Your task to perform on an android device: add a contact in the contacts app Image 0: 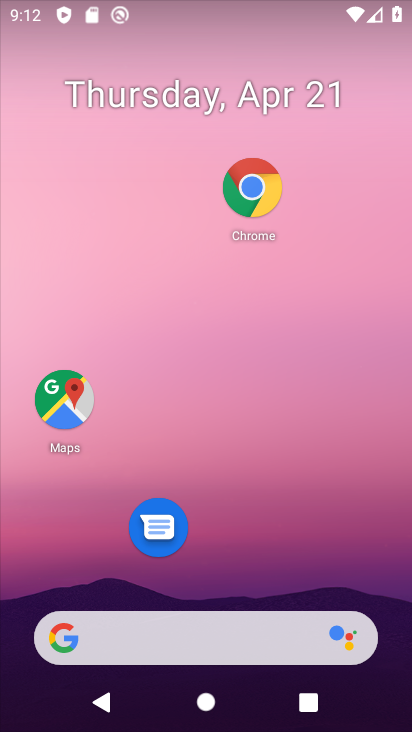
Step 0: drag from (290, 552) to (366, 158)
Your task to perform on an android device: add a contact in the contacts app Image 1: 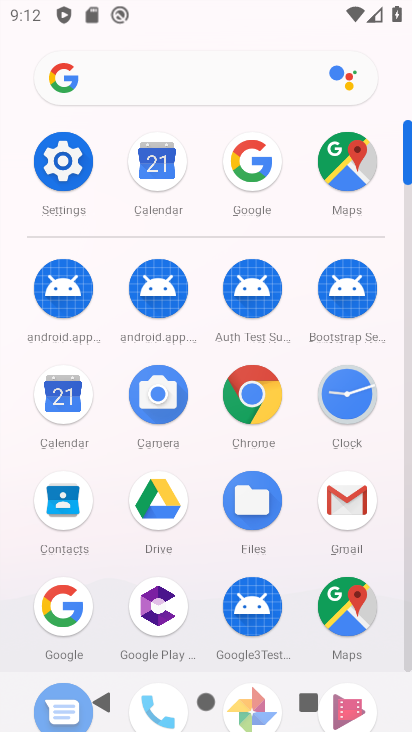
Step 1: click (63, 395)
Your task to perform on an android device: add a contact in the contacts app Image 2: 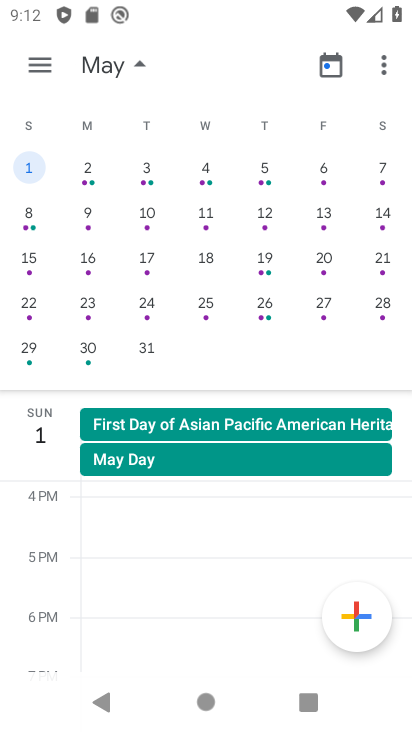
Step 2: press home button
Your task to perform on an android device: add a contact in the contacts app Image 3: 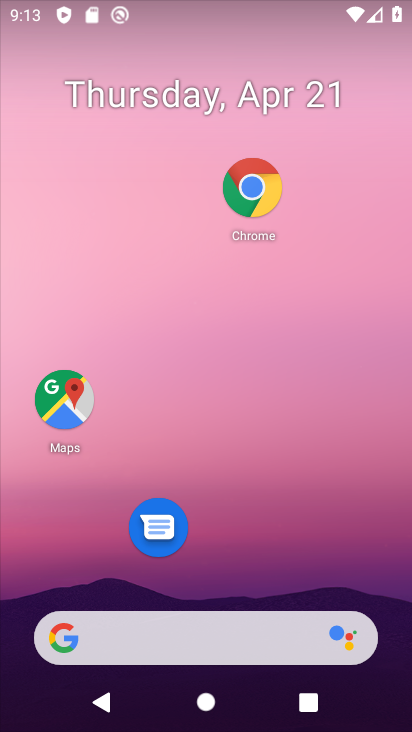
Step 3: drag from (152, 561) to (208, 90)
Your task to perform on an android device: add a contact in the contacts app Image 4: 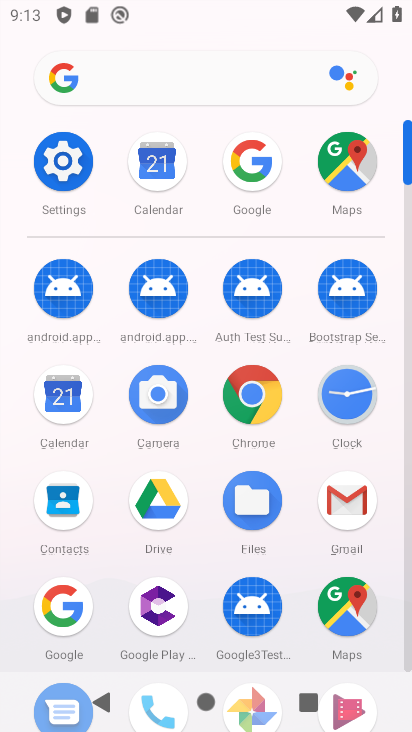
Step 4: click (58, 495)
Your task to perform on an android device: add a contact in the contacts app Image 5: 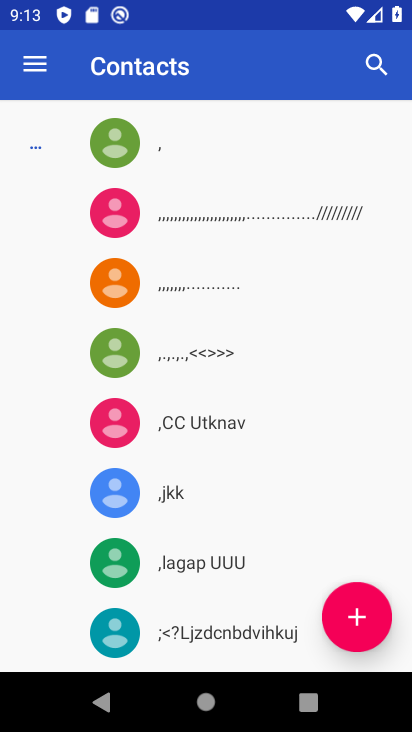
Step 5: click (351, 611)
Your task to perform on an android device: add a contact in the contacts app Image 6: 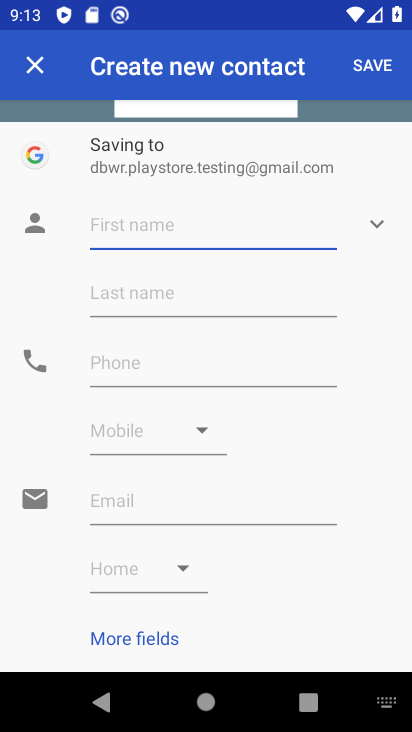
Step 6: type "jhgjjbjb"
Your task to perform on an android device: add a contact in the contacts app Image 7: 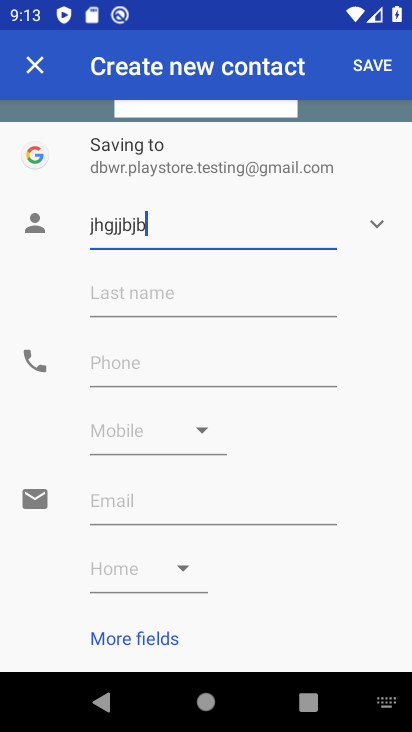
Step 7: click (179, 364)
Your task to perform on an android device: add a contact in the contacts app Image 8: 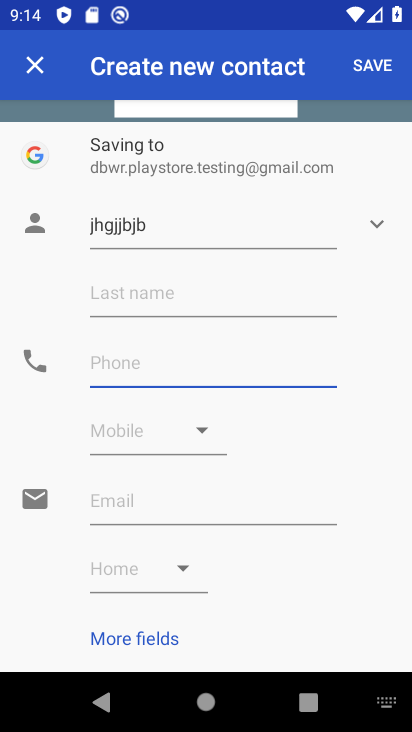
Step 8: type "9709708"
Your task to perform on an android device: add a contact in the contacts app Image 9: 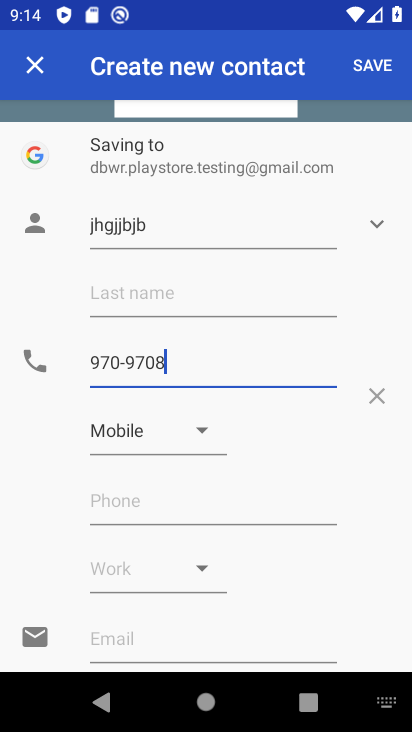
Step 9: click (364, 65)
Your task to perform on an android device: add a contact in the contacts app Image 10: 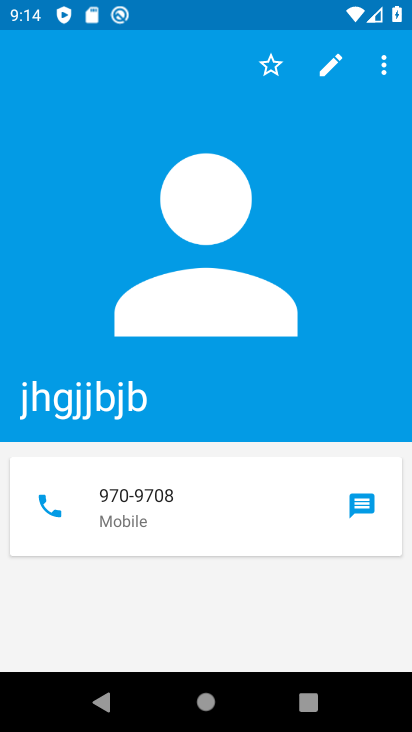
Step 10: task complete